Your task to perform on an android device: uninstall "Pandora - Music & Podcasts" Image 0: 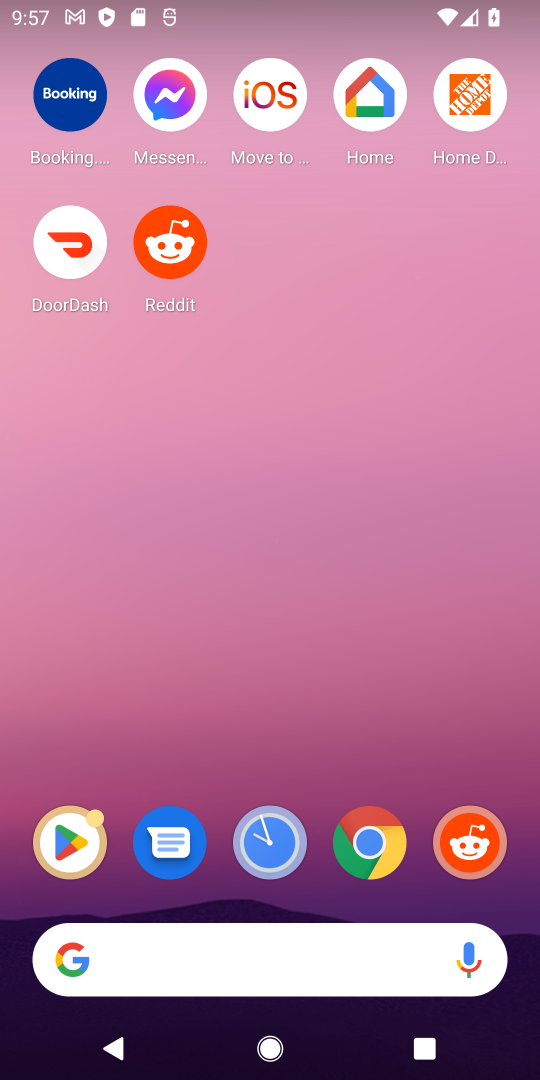
Step 0: click (75, 837)
Your task to perform on an android device: uninstall "Pandora - Music & Podcasts" Image 1: 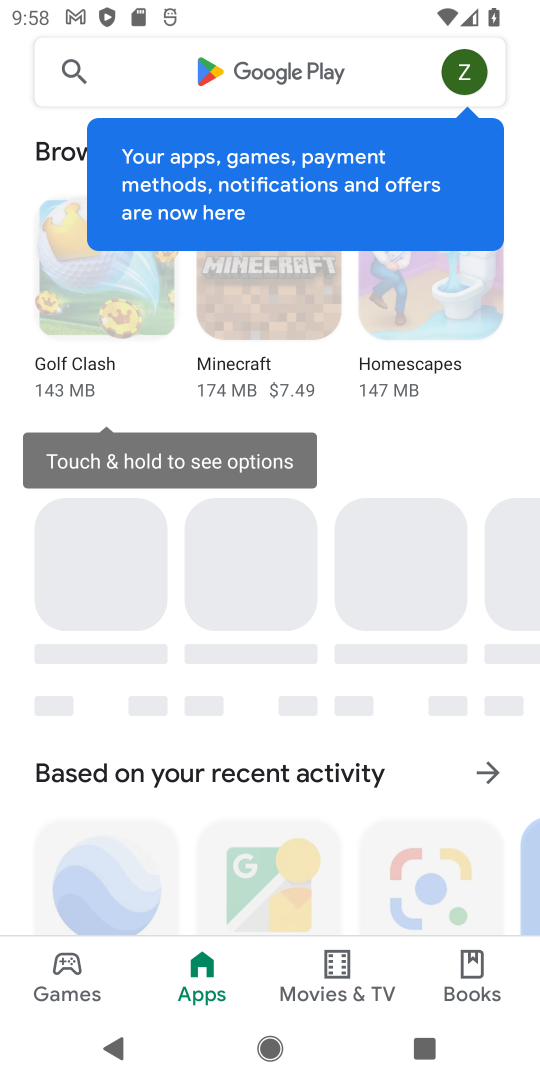
Step 1: click (272, 76)
Your task to perform on an android device: uninstall "Pandora - Music & Podcasts" Image 2: 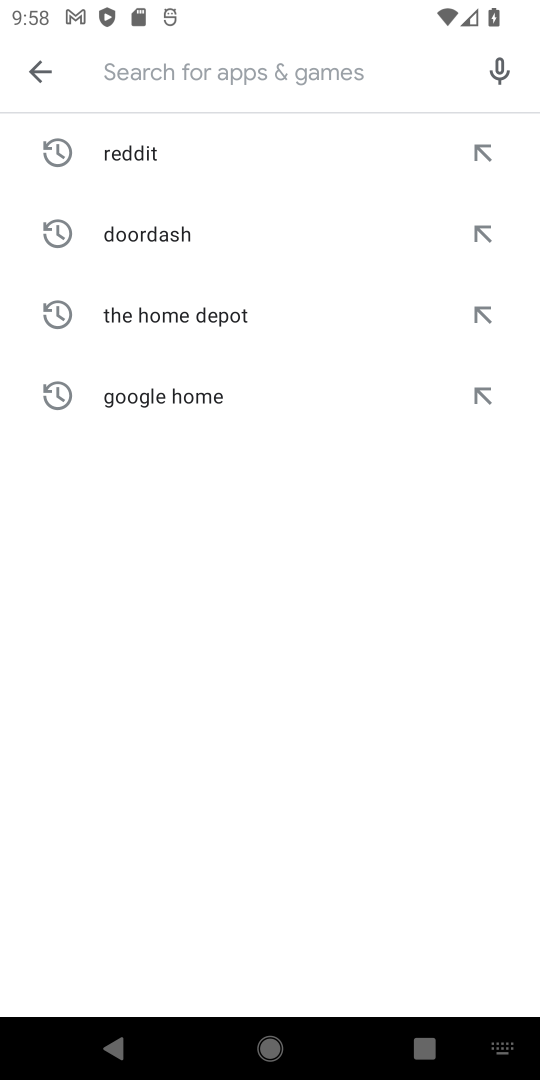
Step 2: type "pandora"
Your task to perform on an android device: uninstall "Pandora - Music & Podcasts" Image 3: 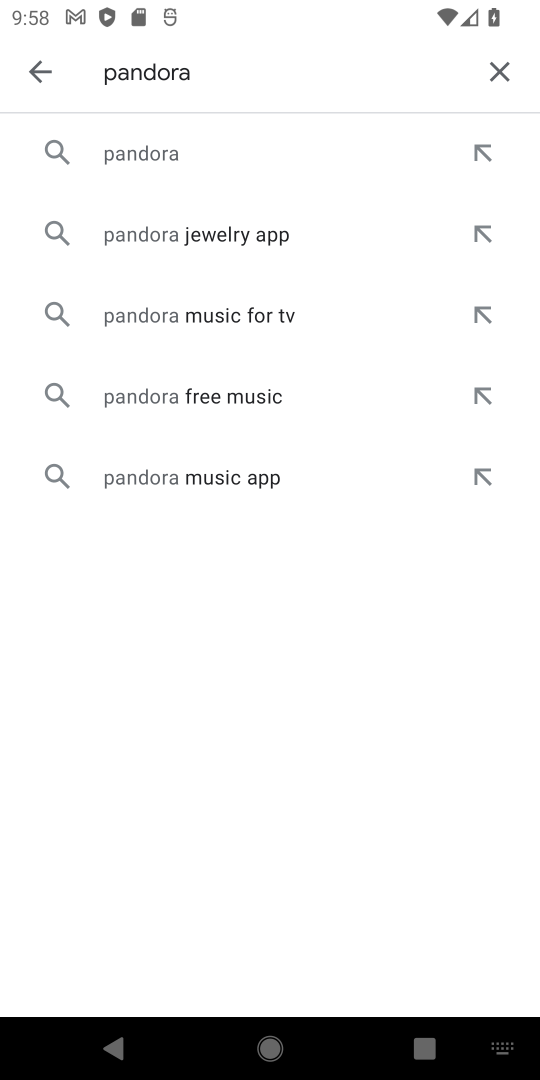
Step 3: click (185, 151)
Your task to perform on an android device: uninstall "Pandora - Music & Podcasts" Image 4: 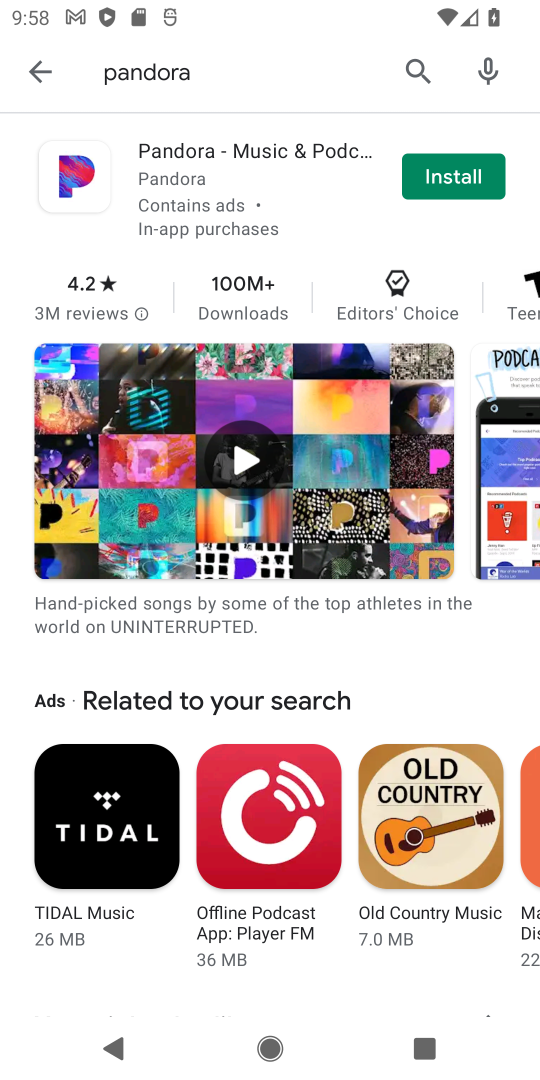
Step 4: task complete